Your task to perform on an android device: change the clock style Image 0: 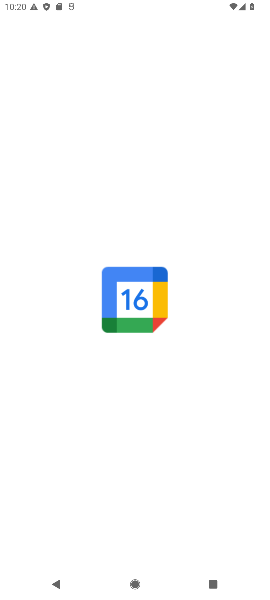
Step 0: press home button
Your task to perform on an android device: change the clock style Image 1: 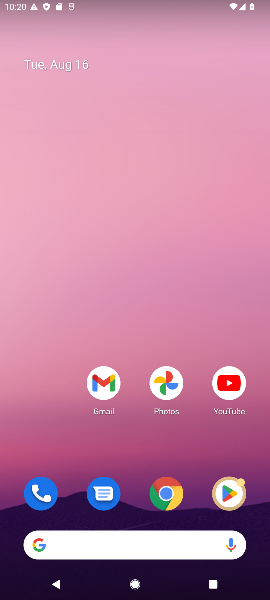
Step 1: drag from (213, 434) to (184, 124)
Your task to perform on an android device: change the clock style Image 2: 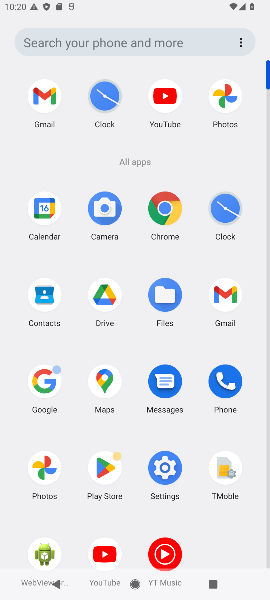
Step 2: click (231, 212)
Your task to perform on an android device: change the clock style Image 3: 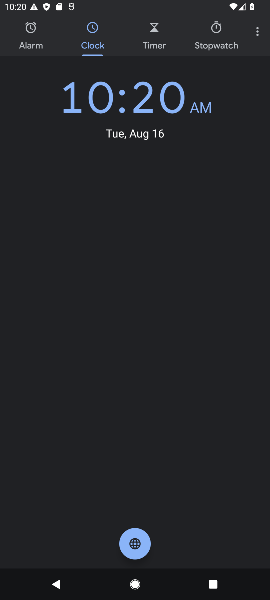
Step 3: click (255, 29)
Your task to perform on an android device: change the clock style Image 4: 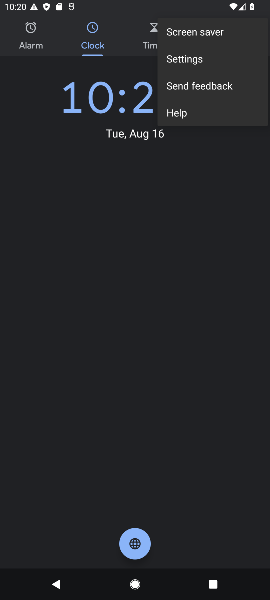
Step 4: click (196, 61)
Your task to perform on an android device: change the clock style Image 5: 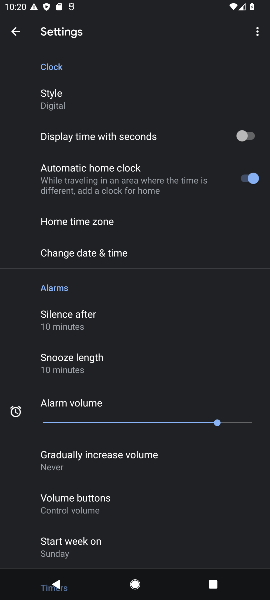
Step 5: click (98, 102)
Your task to perform on an android device: change the clock style Image 6: 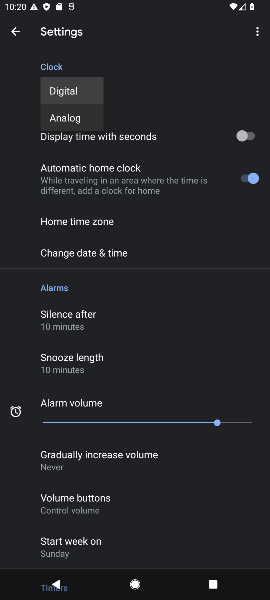
Step 6: click (79, 126)
Your task to perform on an android device: change the clock style Image 7: 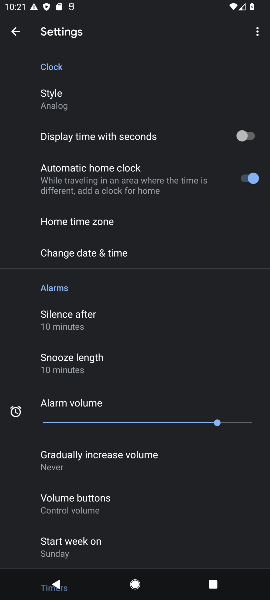
Step 7: task complete